Your task to perform on an android device: turn on javascript in the chrome app Image 0: 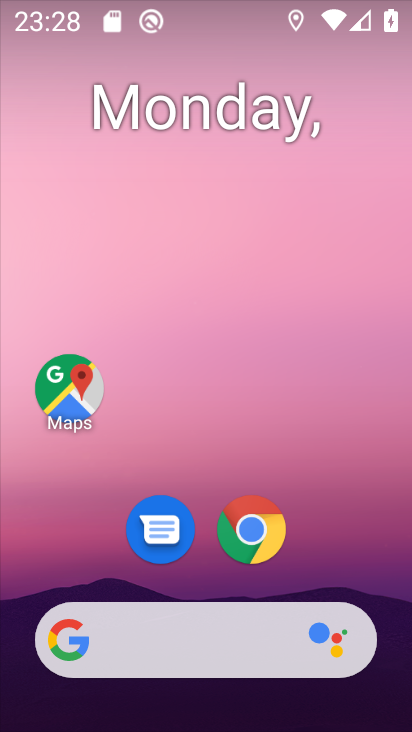
Step 0: click (258, 523)
Your task to perform on an android device: turn on javascript in the chrome app Image 1: 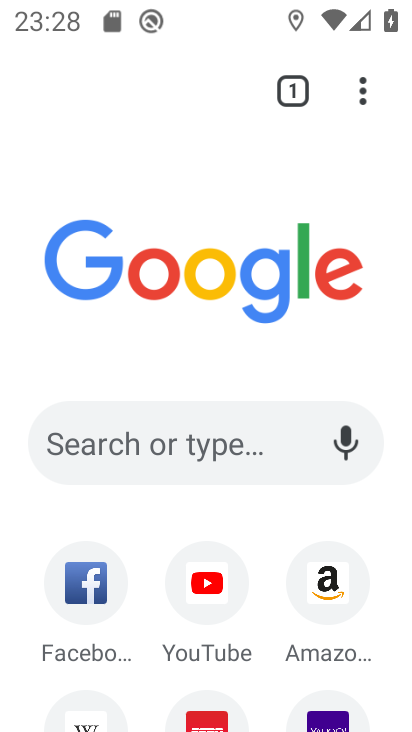
Step 1: click (371, 94)
Your task to perform on an android device: turn on javascript in the chrome app Image 2: 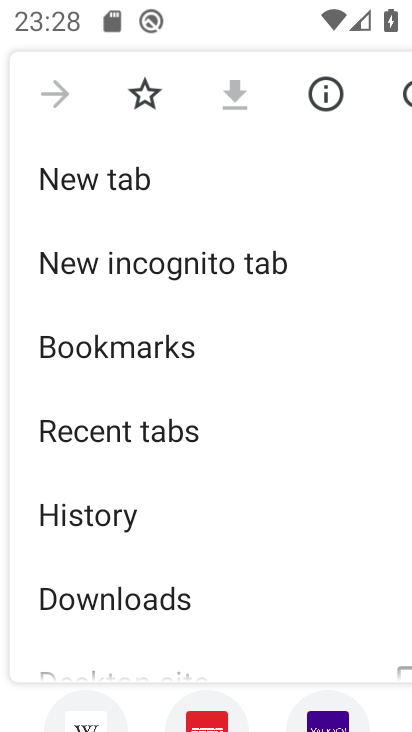
Step 2: drag from (246, 641) to (272, 317)
Your task to perform on an android device: turn on javascript in the chrome app Image 3: 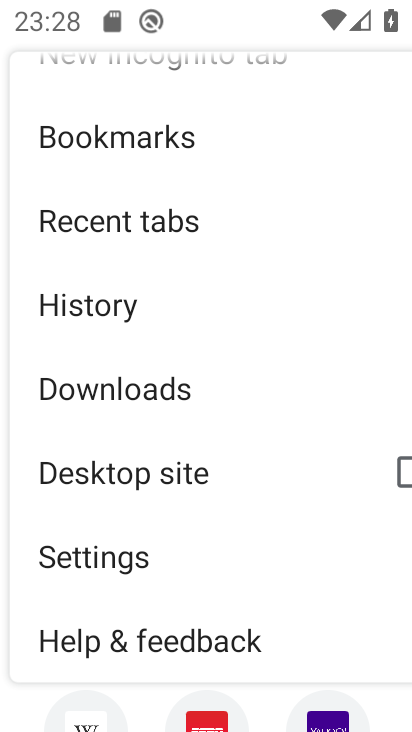
Step 3: click (111, 552)
Your task to perform on an android device: turn on javascript in the chrome app Image 4: 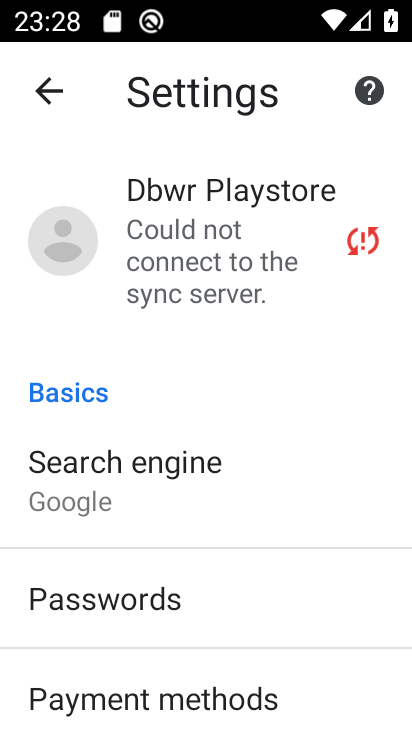
Step 4: drag from (301, 627) to (298, 378)
Your task to perform on an android device: turn on javascript in the chrome app Image 5: 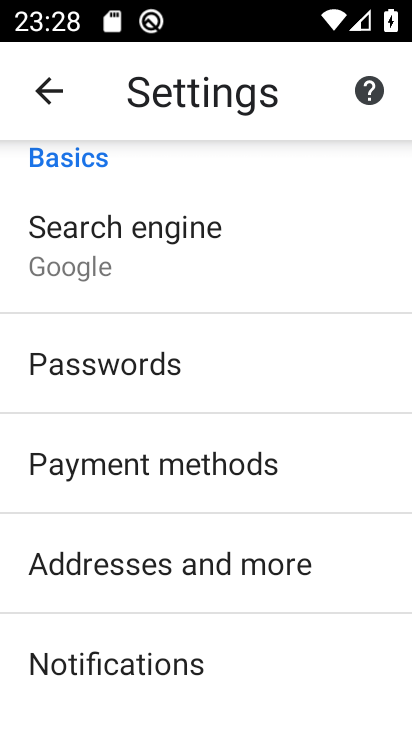
Step 5: drag from (307, 623) to (311, 438)
Your task to perform on an android device: turn on javascript in the chrome app Image 6: 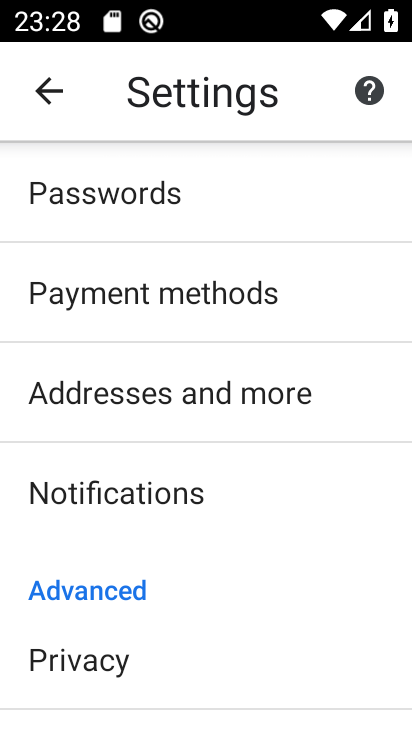
Step 6: drag from (256, 610) to (291, 281)
Your task to perform on an android device: turn on javascript in the chrome app Image 7: 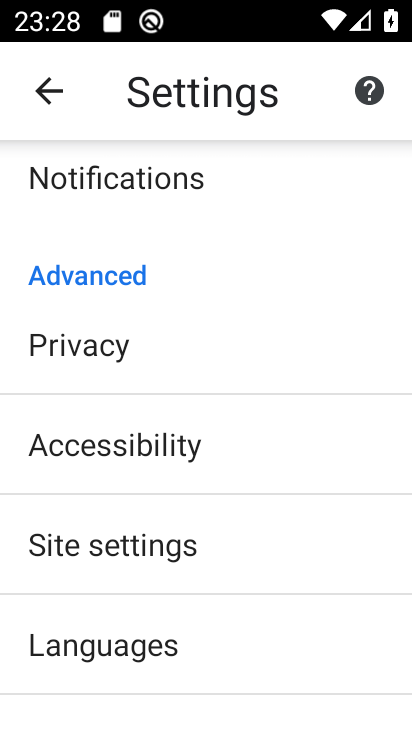
Step 7: click (171, 535)
Your task to perform on an android device: turn on javascript in the chrome app Image 8: 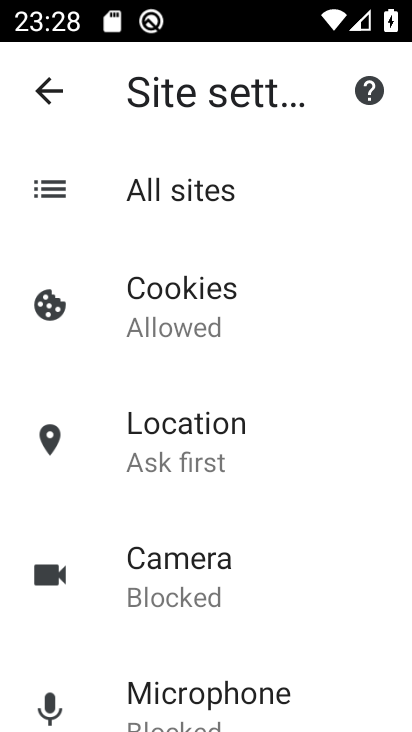
Step 8: drag from (293, 584) to (319, 137)
Your task to perform on an android device: turn on javascript in the chrome app Image 9: 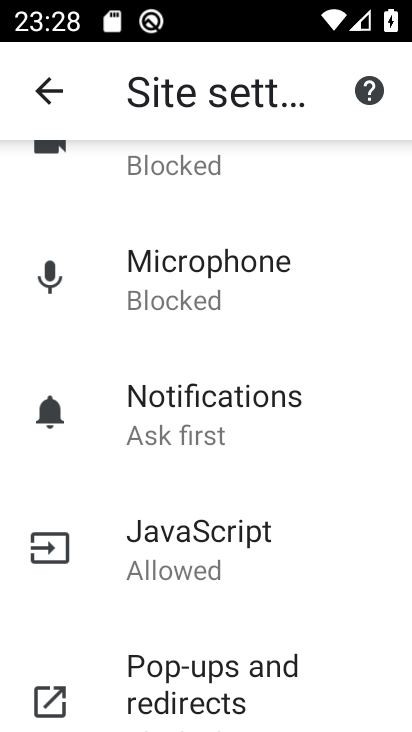
Step 9: click (194, 565)
Your task to perform on an android device: turn on javascript in the chrome app Image 10: 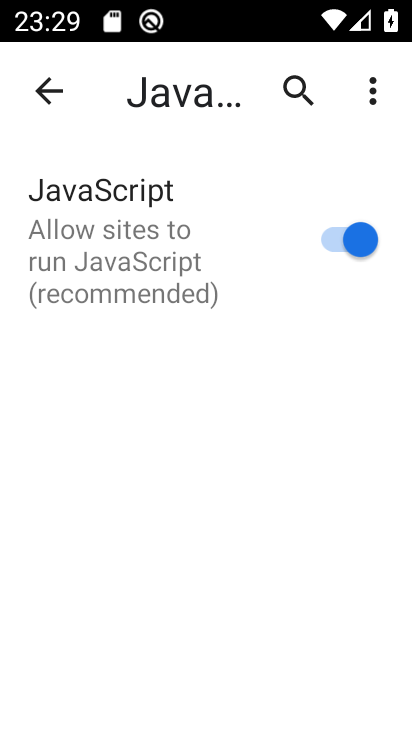
Step 10: task complete